Your task to perform on an android device: Go to Maps Image 0: 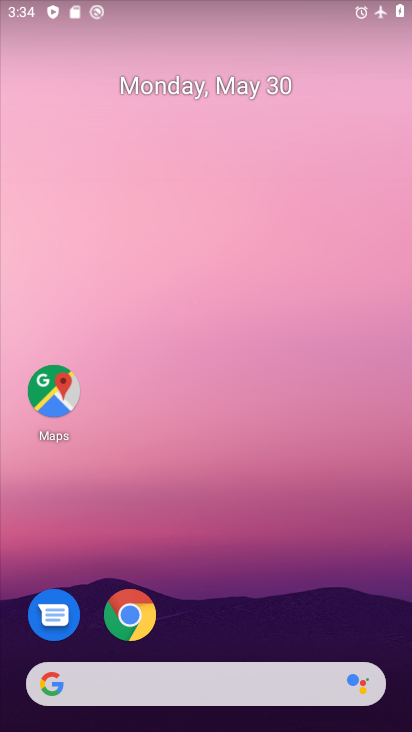
Step 0: click (52, 383)
Your task to perform on an android device: Go to Maps Image 1: 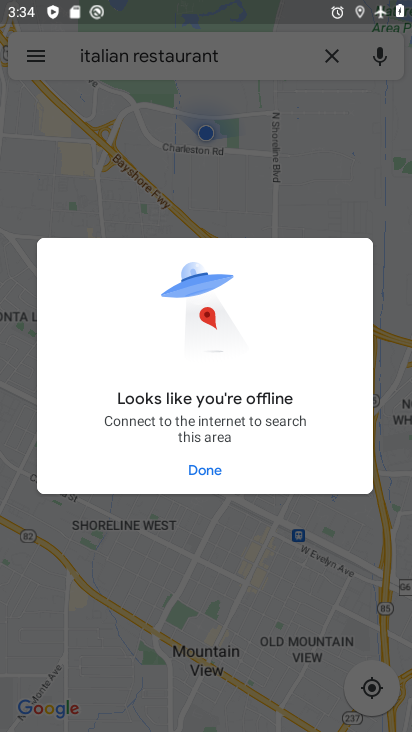
Step 1: task complete